Your task to perform on an android device: Open my contact list Image 0: 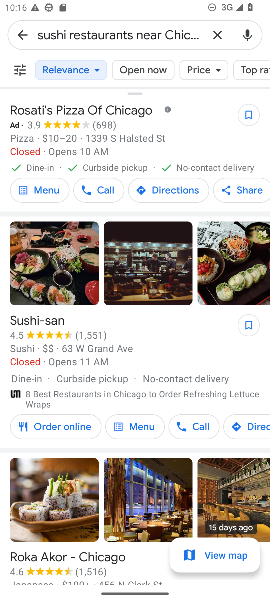
Step 0: press home button
Your task to perform on an android device: Open my contact list Image 1: 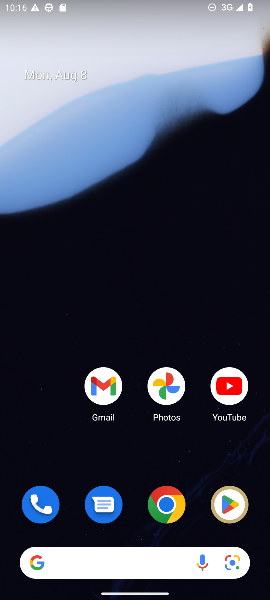
Step 1: drag from (116, 433) to (164, 84)
Your task to perform on an android device: Open my contact list Image 2: 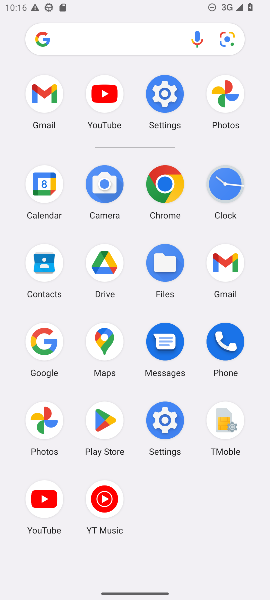
Step 2: click (46, 278)
Your task to perform on an android device: Open my contact list Image 3: 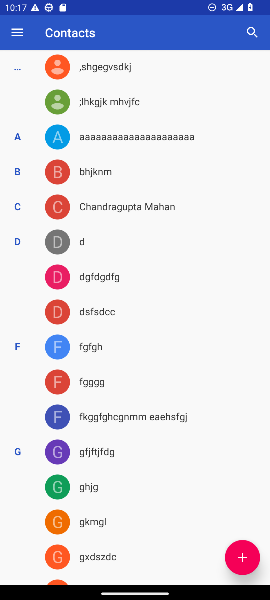
Step 3: task complete